Your task to perform on an android device: Search for a coffee table on IKEA Image 0: 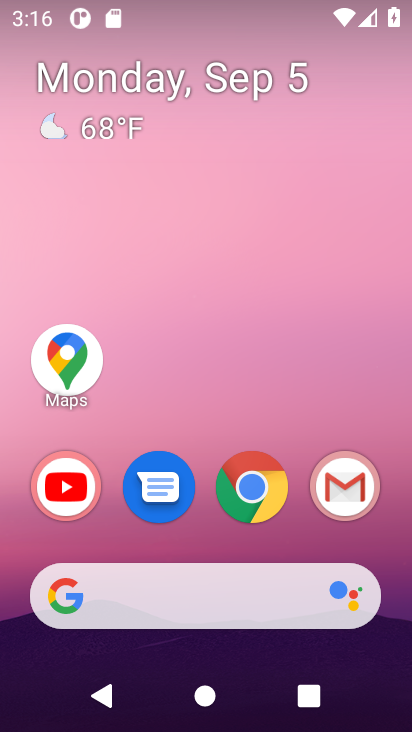
Step 0: click (242, 493)
Your task to perform on an android device: Search for a coffee table on IKEA Image 1: 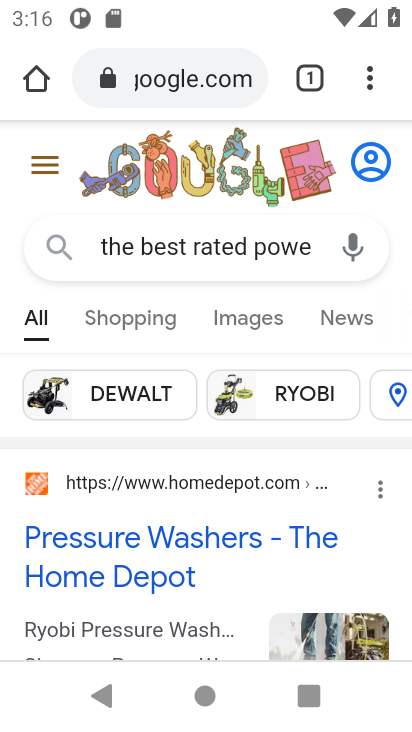
Step 1: click (166, 86)
Your task to perform on an android device: Search for a coffee table on IKEA Image 2: 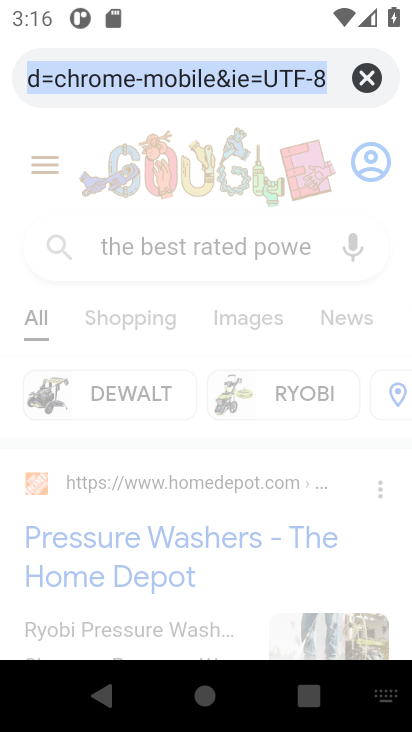
Step 2: click (364, 72)
Your task to perform on an android device: Search for a coffee table on IKEA Image 3: 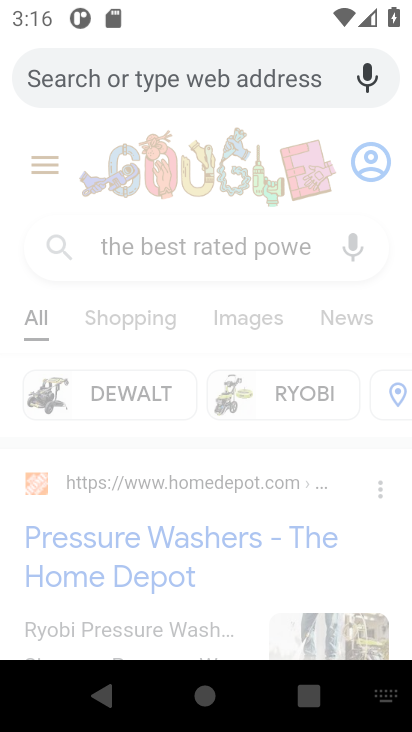
Step 3: click (106, 77)
Your task to perform on an android device: Search for a coffee table on IKEA Image 4: 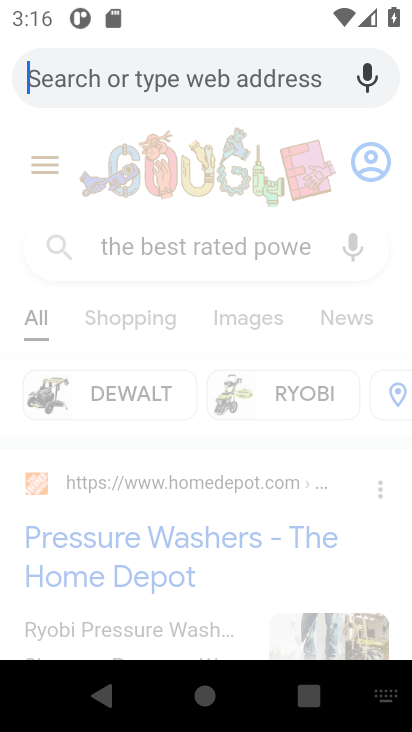
Step 4: type " coffee table on IKEA"
Your task to perform on an android device: Search for a coffee table on IKEA Image 5: 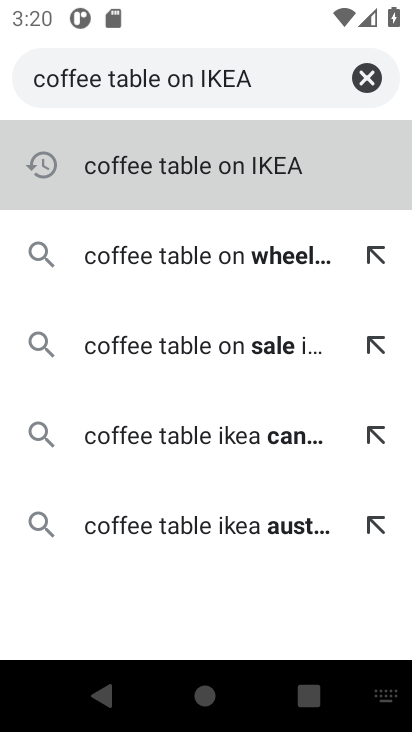
Step 5: click (220, 155)
Your task to perform on an android device: Search for a coffee table on IKEA Image 6: 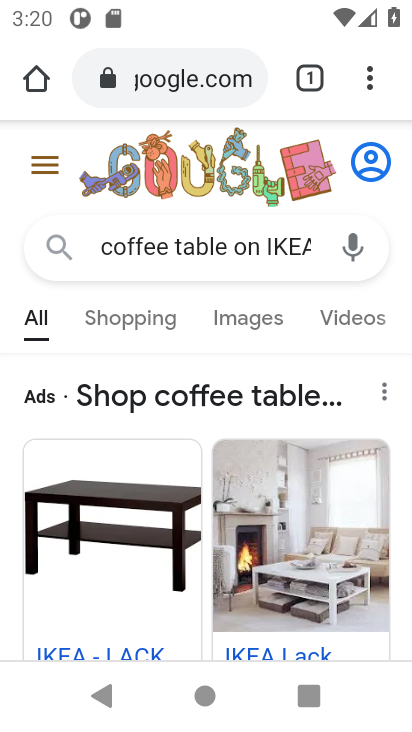
Step 6: task complete